Your task to perform on an android device: Go to display settings Image 0: 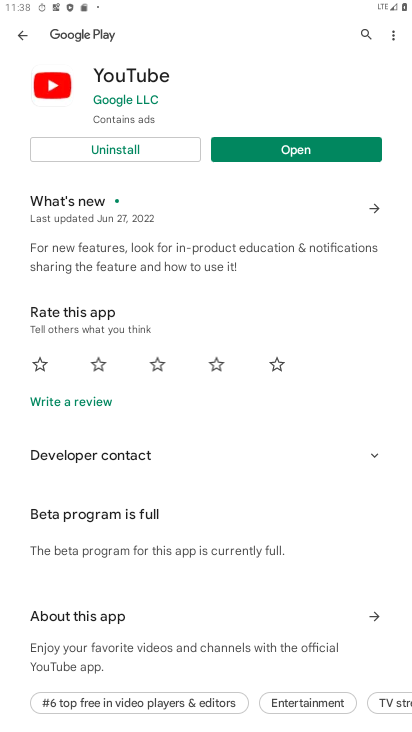
Step 0: press home button
Your task to perform on an android device: Go to display settings Image 1: 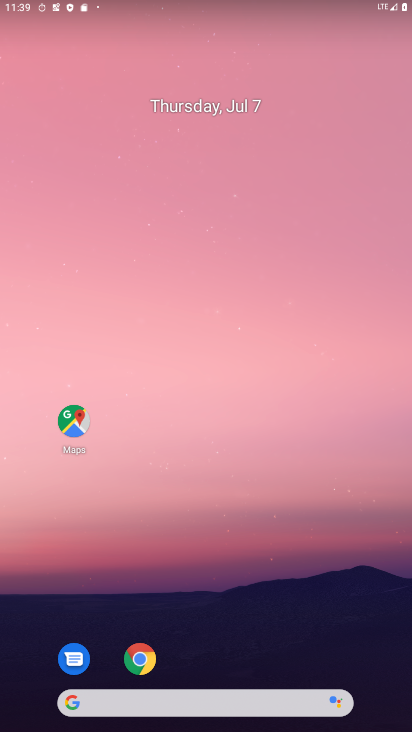
Step 1: drag from (184, 334) to (184, 78)
Your task to perform on an android device: Go to display settings Image 2: 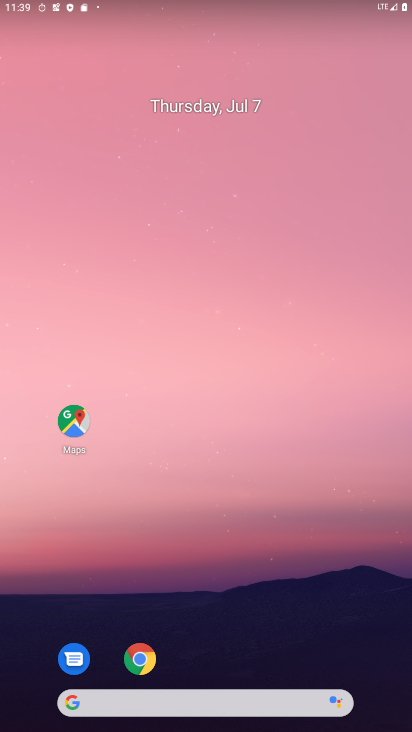
Step 2: drag from (221, 671) to (205, 81)
Your task to perform on an android device: Go to display settings Image 3: 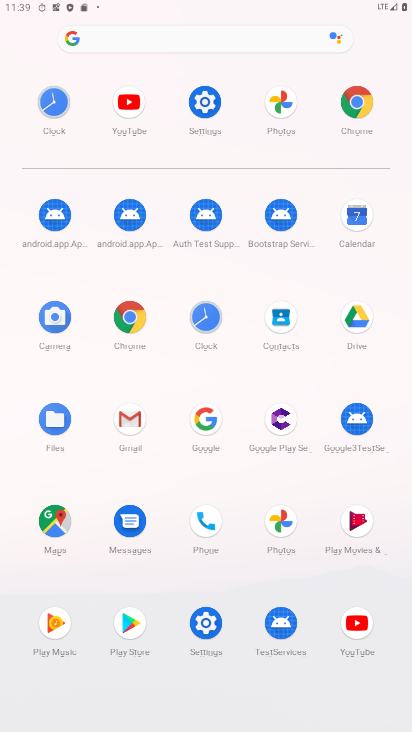
Step 3: click (202, 95)
Your task to perform on an android device: Go to display settings Image 4: 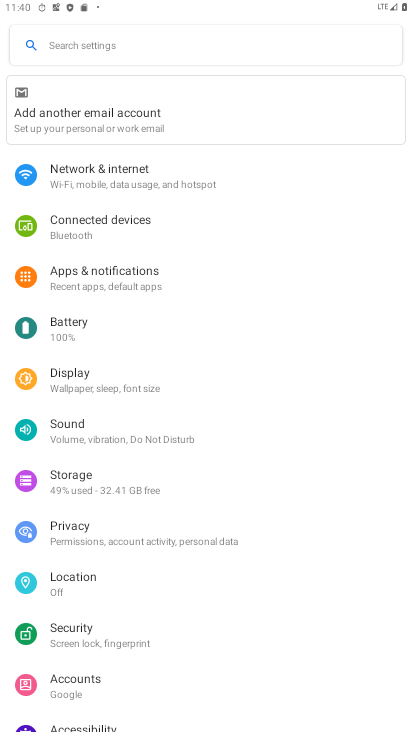
Step 4: click (99, 375)
Your task to perform on an android device: Go to display settings Image 5: 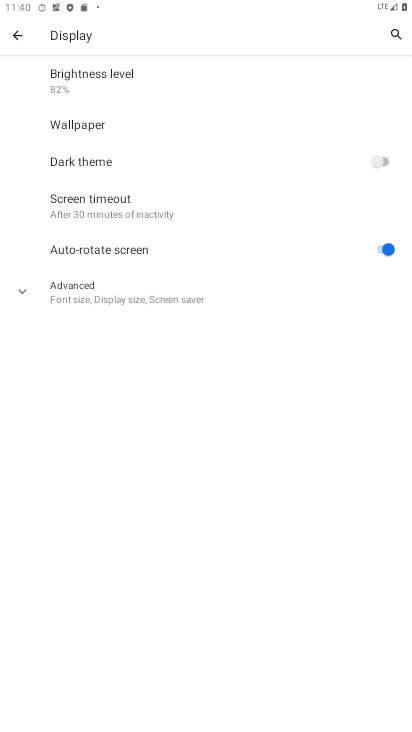
Step 5: click (51, 294)
Your task to perform on an android device: Go to display settings Image 6: 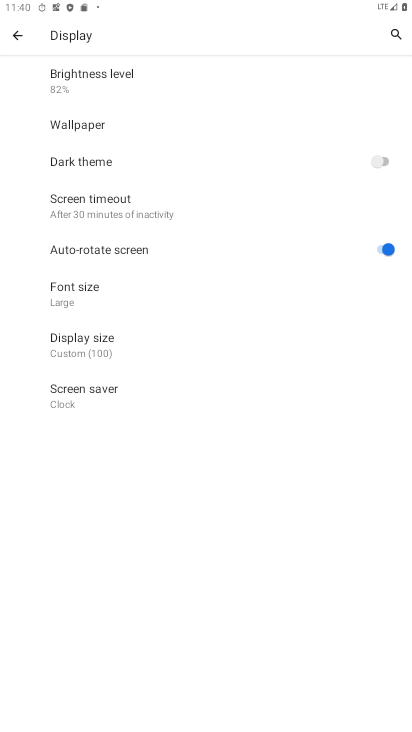
Step 6: task complete